Your task to perform on an android device: toggle sleep mode Image 0: 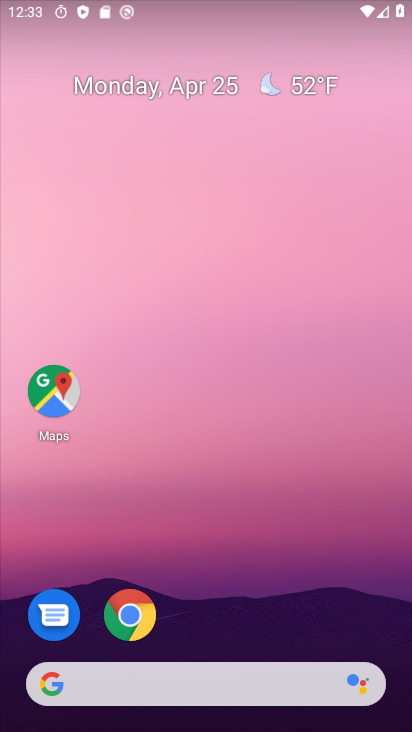
Step 0: drag from (187, 649) to (114, 4)
Your task to perform on an android device: toggle sleep mode Image 1: 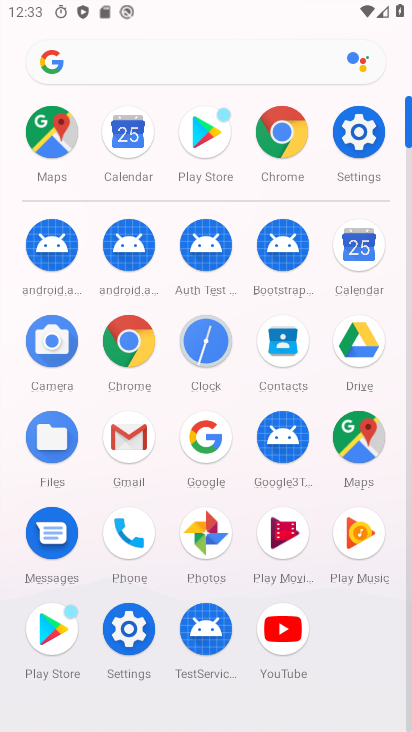
Step 1: click (343, 138)
Your task to perform on an android device: toggle sleep mode Image 2: 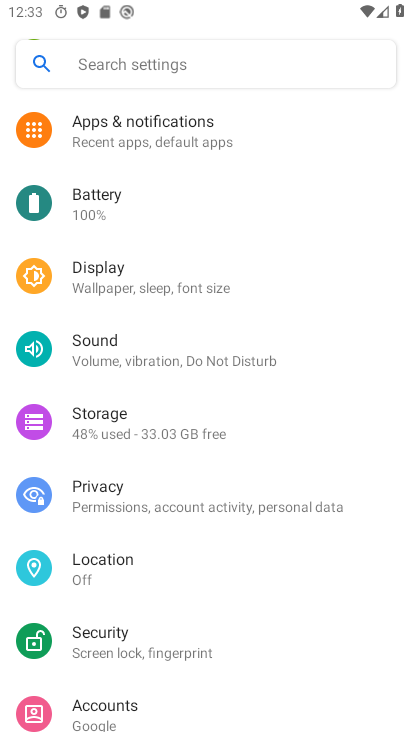
Step 2: click (112, 269)
Your task to perform on an android device: toggle sleep mode Image 3: 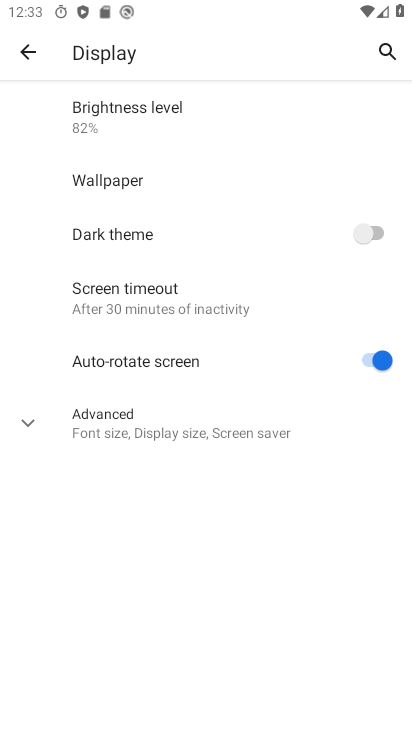
Step 3: click (110, 441)
Your task to perform on an android device: toggle sleep mode Image 4: 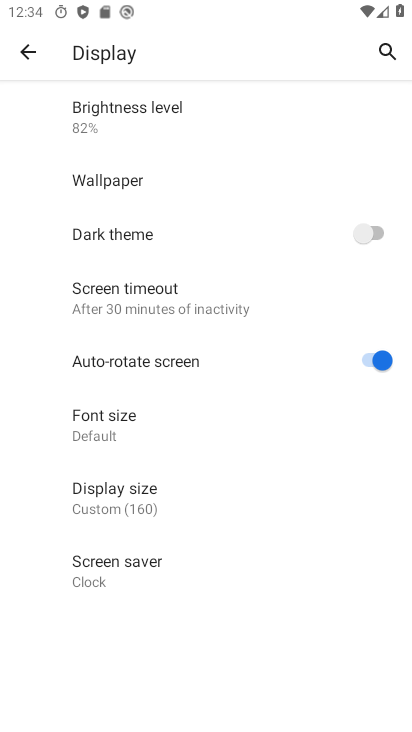
Step 4: task complete